Your task to perform on an android device: find snoozed emails in the gmail app Image 0: 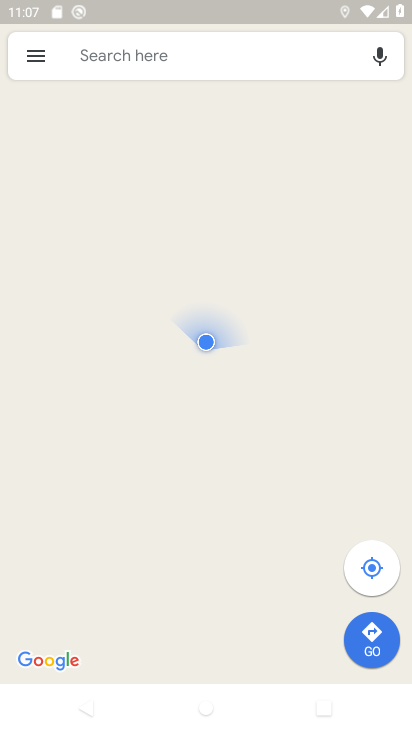
Step 0: press home button
Your task to perform on an android device: find snoozed emails in the gmail app Image 1: 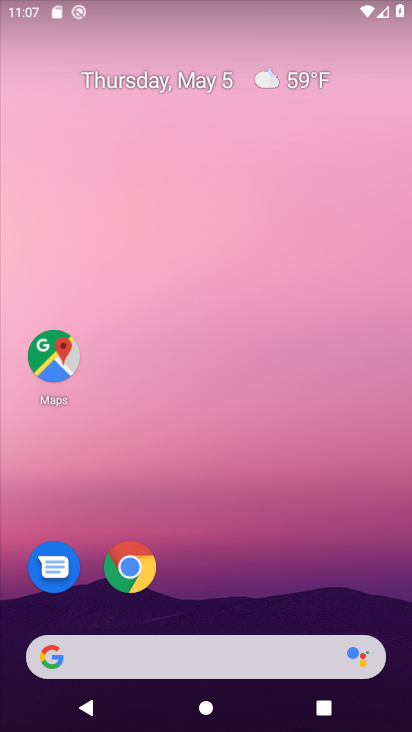
Step 1: drag from (320, 585) to (311, 0)
Your task to perform on an android device: find snoozed emails in the gmail app Image 2: 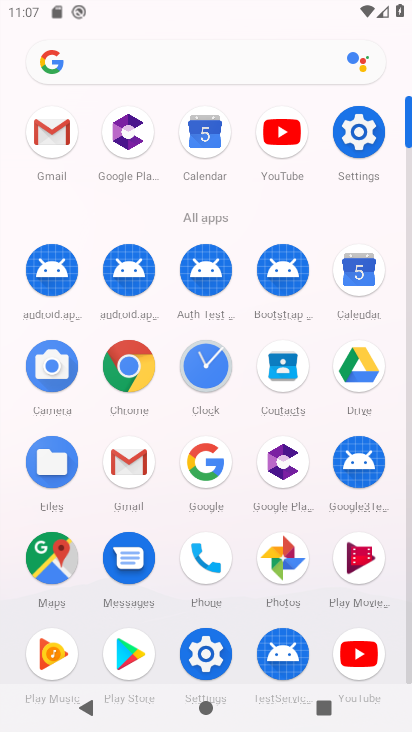
Step 2: click (57, 146)
Your task to perform on an android device: find snoozed emails in the gmail app Image 3: 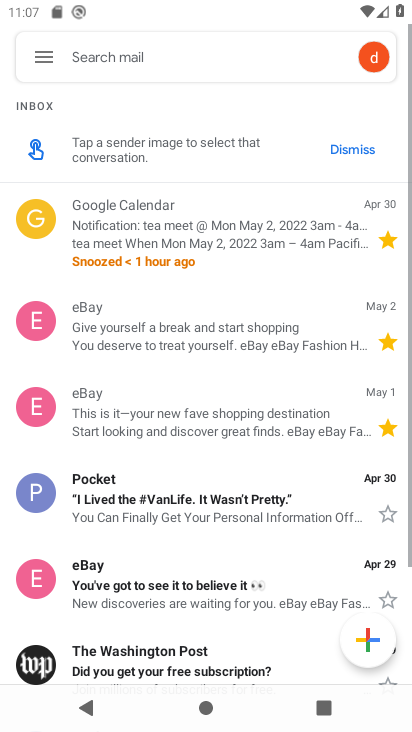
Step 3: click (46, 56)
Your task to perform on an android device: find snoozed emails in the gmail app Image 4: 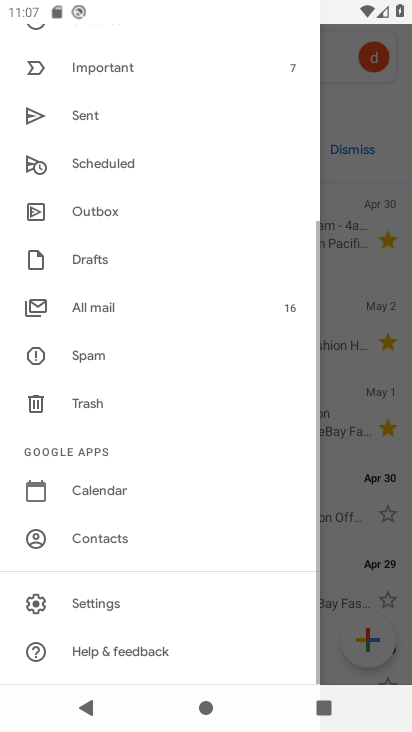
Step 4: drag from (172, 198) to (213, 583)
Your task to perform on an android device: find snoozed emails in the gmail app Image 5: 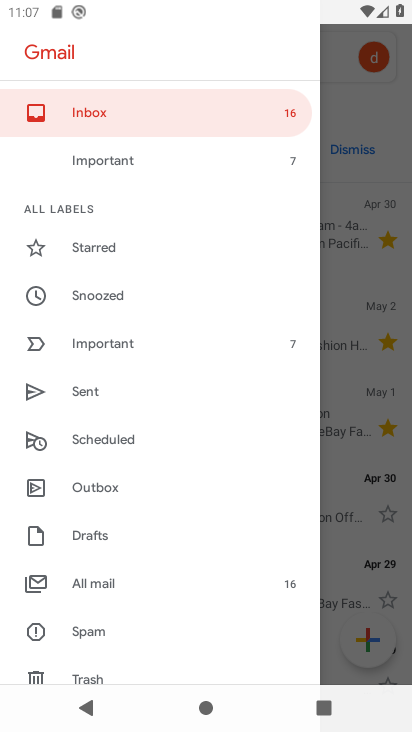
Step 5: click (93, 297)
Your task to perform on an android device: find snoozed emails in the gmail app Image 6: 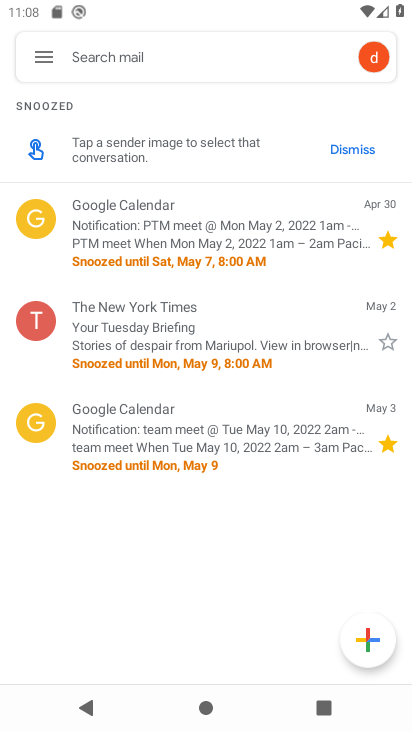
Step 6: task complete